Your task to perform on an android device: add a label to a message in the gmail app Image 0: 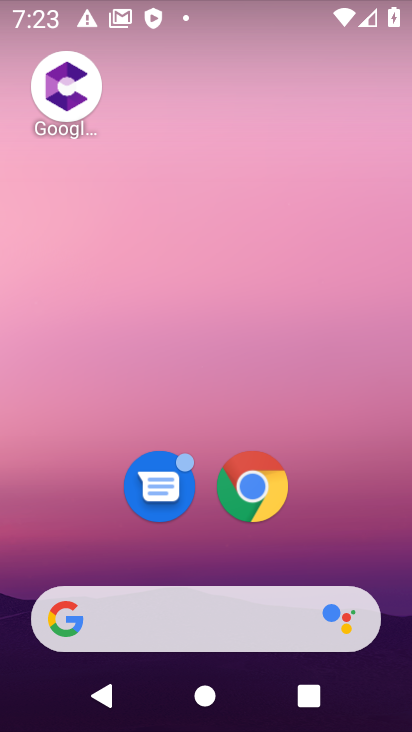
Step 0: drag from (93, 598) to (22, 158)
Your task to perform on an android device: add a label to a message in the gmail app Image 1: 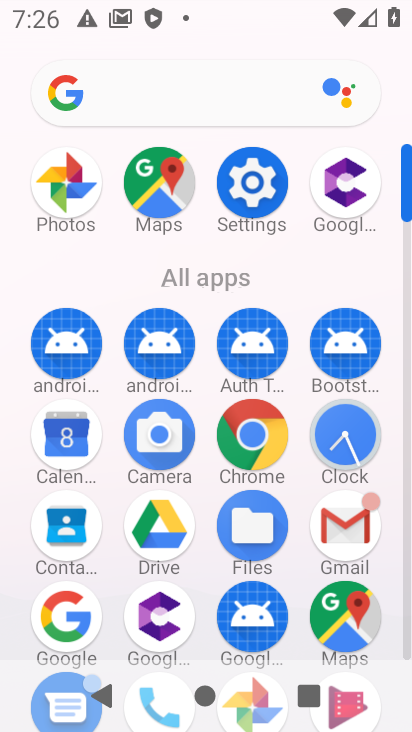
Step 1: click (333, 512)
Your task to perform on an android device: add a label to a message in the gmail app Image 2: 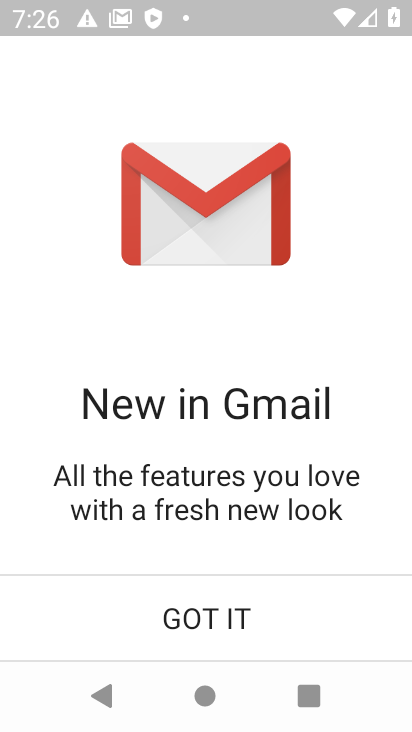
Step 2: click (212, 613)
Your task to perform on an android device: add a label to a message in the gmail app Image 3: 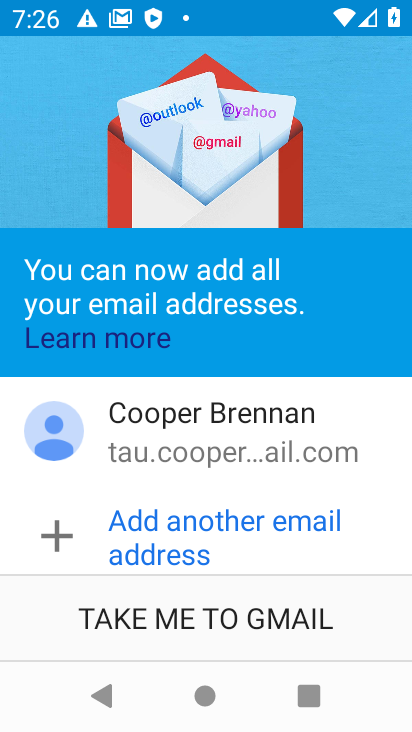
Step 3: click (173, 630)
Your task to perform on an android device: add a label to a message in the gmail app Image 4: 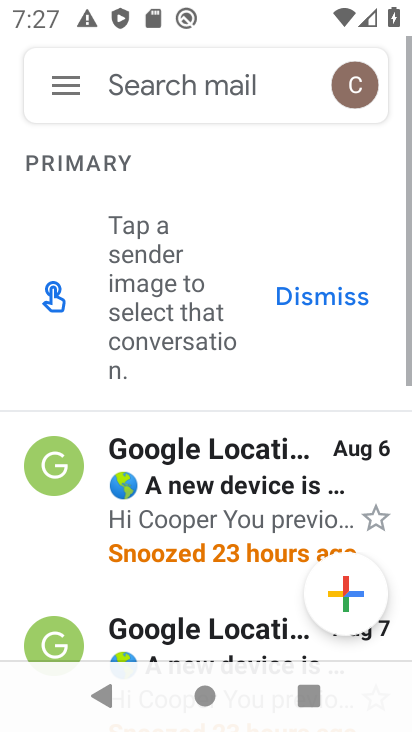
Step 4: click (163, 464)
Your task to perform on an android device: add a label to a message in the gmail app Image 5: 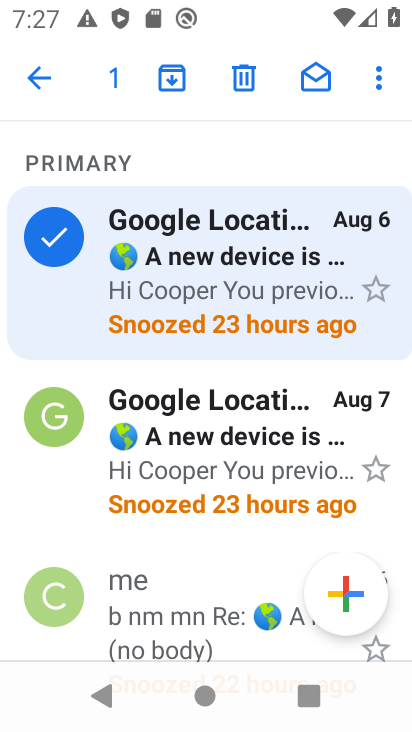
Step 5: click (58, 235)
Your task to perform on an android device: add a label to a message in the gmail app Image 6: 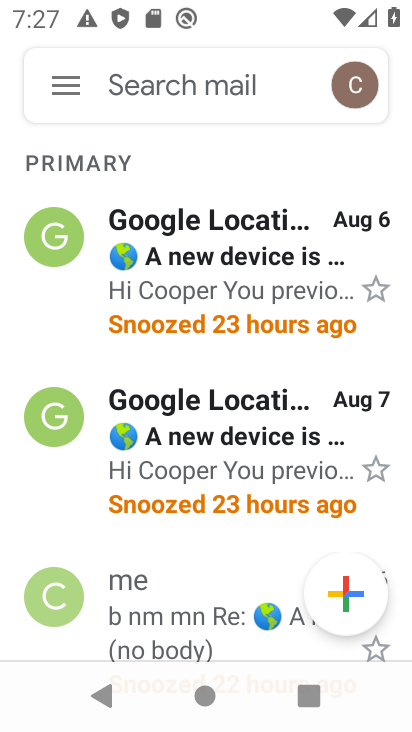
Step 6: task complete